Your task to perform on an android device: open wifi settings Image 0: 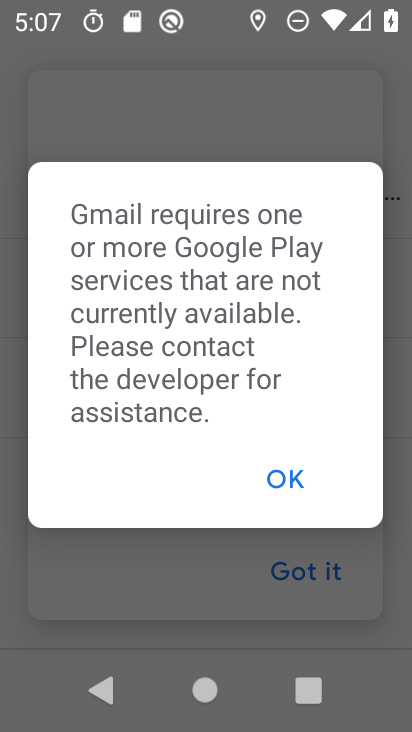
Step 0: press home button
Your task to perform on an android device: open wifi settings Image 1: 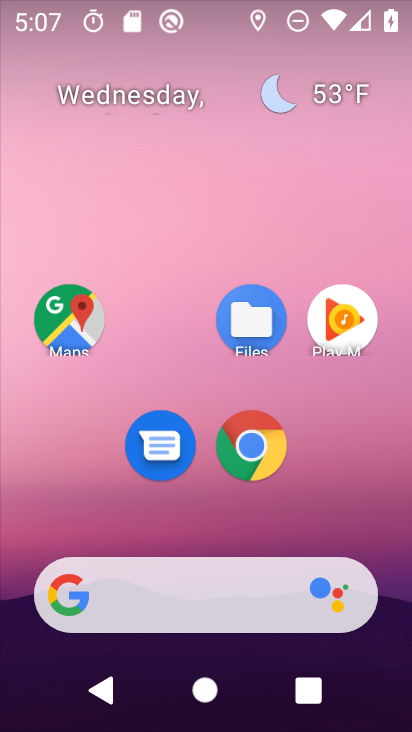
Step 1: drag from (269, 529) to (282, 13)
Your task to perform on an android device: open wifi settings Image 2: 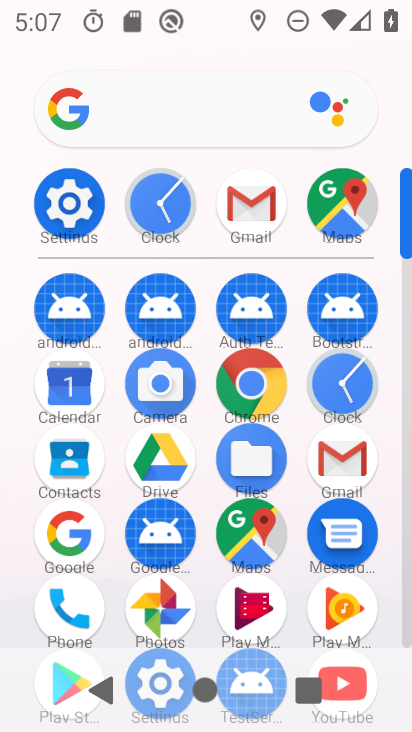
Step 2: click (42, 193)
Your task to perform on an android device: open wifi settings Image 3: 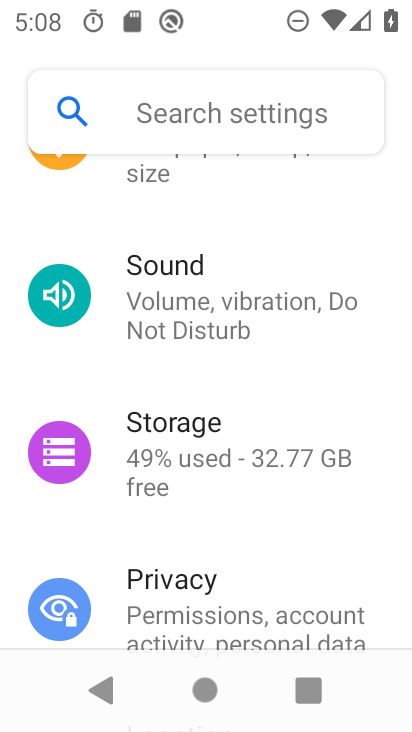
Step 3: drag from (344, 249) to (367, 494)
Your task to perform on an android device: open wifi settings Image 4: 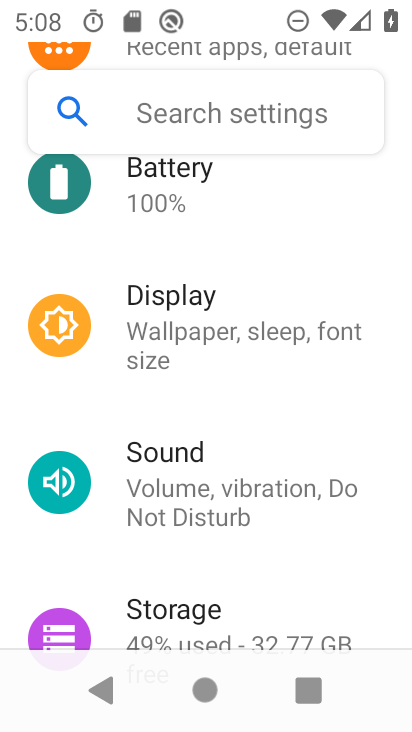
Step 4: drag from (374, 261) to (397, 505)
Your task to perform on an android device: open wifi settings Image 5: 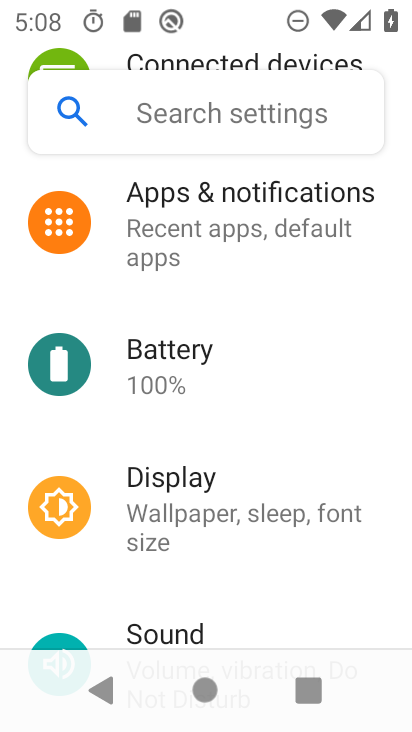
Step 5: drag from (369, 244) to (383, 508)
Your task to perform on an android device: open wifi settings Image 6: 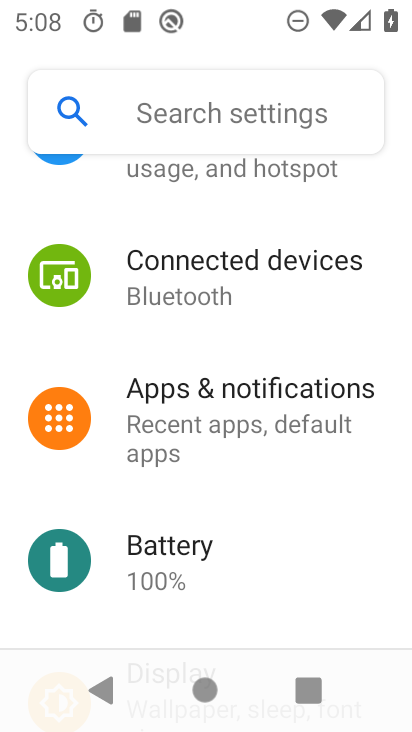
Step 6: click (310, 200)
Your task to perform on an android device: open wifi settings Image 7: 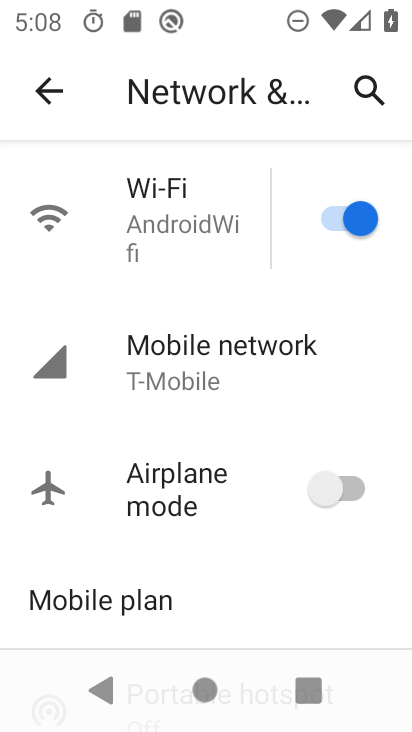
Step 7: task complete